Your task to perform on an android device: open sync settings in chrome Image 0: 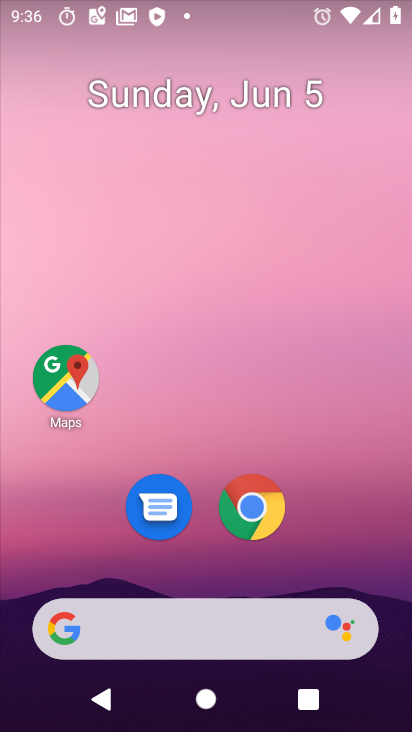
Step 0: drag from (257, 645) to (259, 188)
Your task to perform on an android device: open sync settings in chrome Image 1: 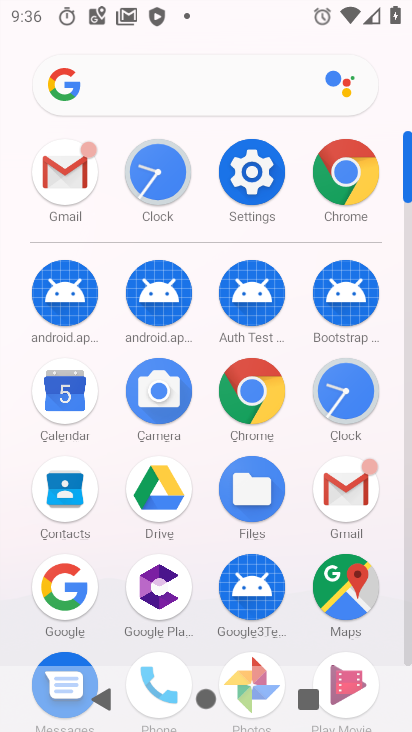
Step 1: click (318, 171)
Your task to perform on an android device: open sync settings in chrome Image 2: 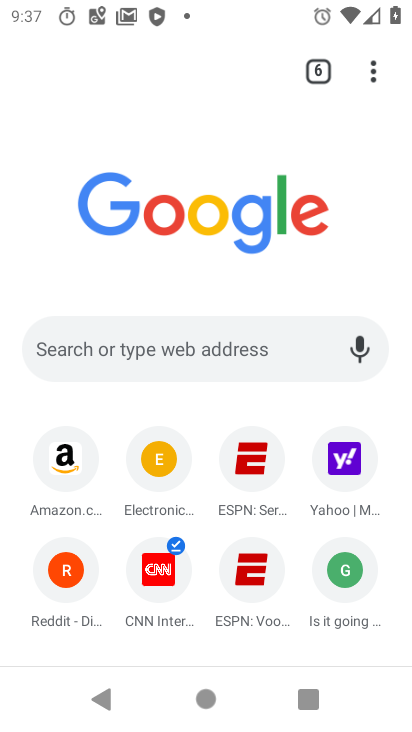
Step 2: click (362, 89)
Your task to perform on an android device: open sync settings in chrome Image 3: 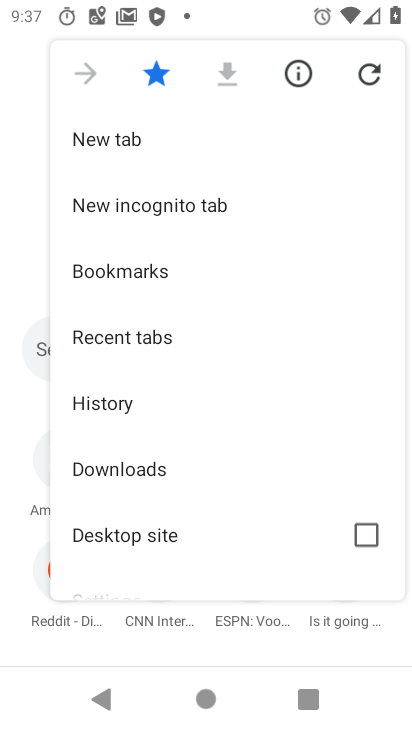
Step 3: drag from (149, 527) to (200, 334)
Your task to perform on an android device: open sync settings in chrome Image 4: 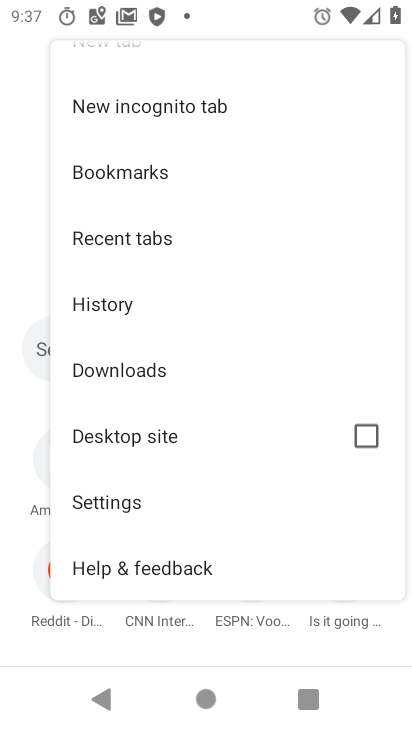
Step 4: click (183, 505)
Your task to perform on an android device: open sync settings in chrome Image 5: 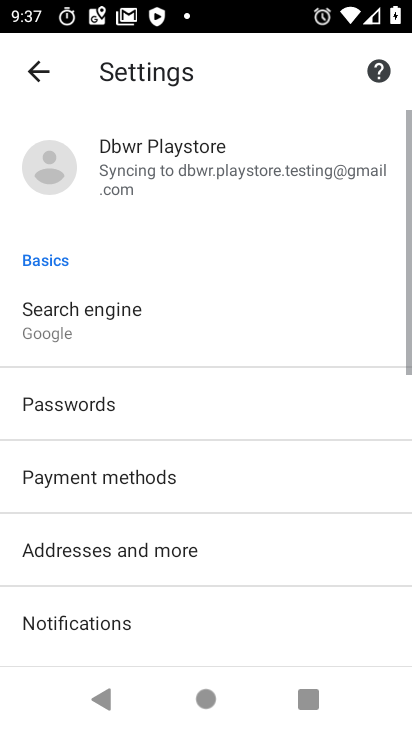
Step 5: task complete